Your task to perform on an android device: Empty the shopping cart on bestbuy.com. Search for "usb-c to usb-b" on bestbuy.com, select the first entry, add it to the cart, then select checkout. Image 0: 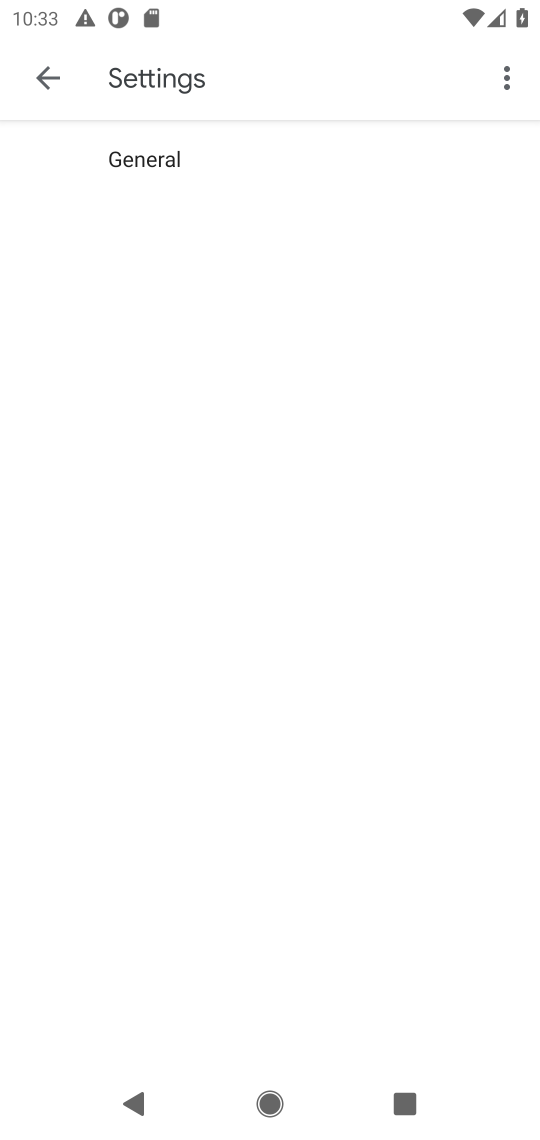
Step 0: press home button
Your task to perform on an android device: Empty the shopping cart on bestbuy.com. Search for "usb-c to usb-b" on bestbuy.com, select the first entry, add it to the cart, then select checkout. Image 1: 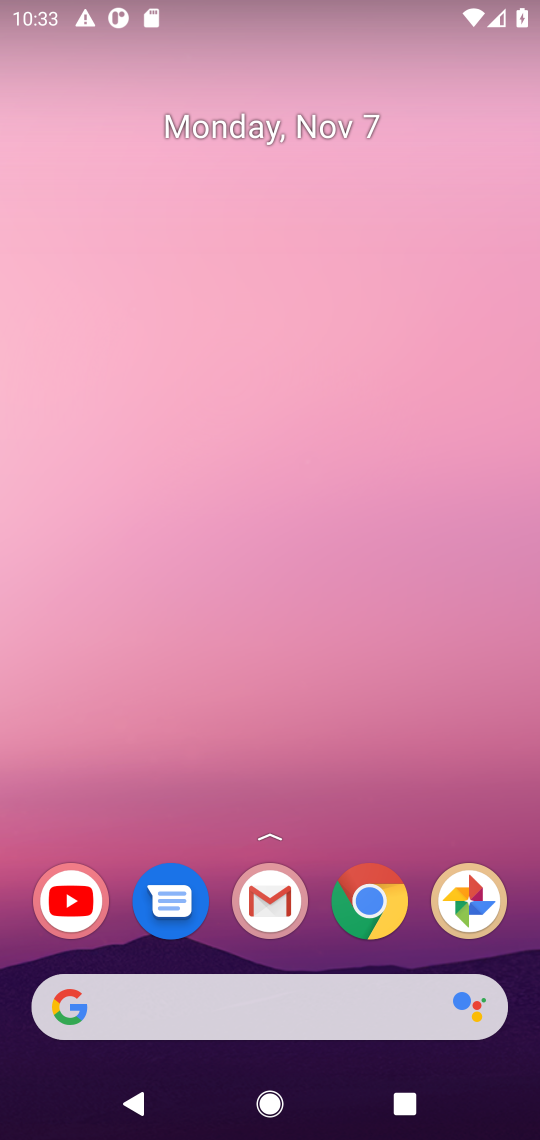
Step 1: click (365, 886)
Your task to perform on an android device: Empty the shopping cart on bestbuy.com. Search for "usb-c to usb-b" on bestbuy.com, select the first entry, add it to the cart, then select checkout. Image 2: 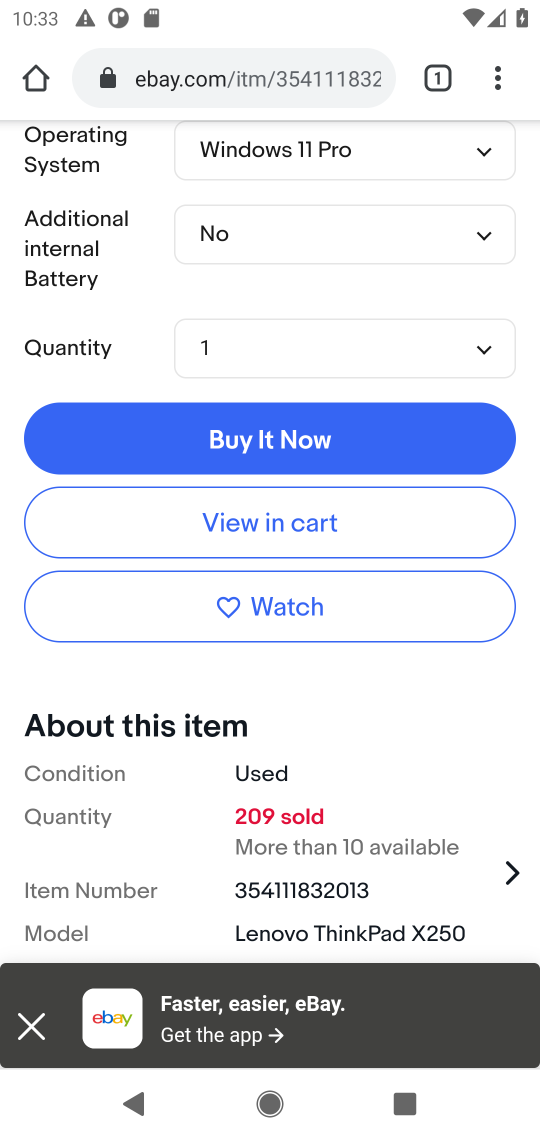
Step 2: click (249, 90)
Your task to perform on an android device: Empty the shopping cart on bestbuy.com. Search for "usb-c to usb-b" on bestbuy.com, select the first entry, add it to the cart, then select checkout. Image 3: 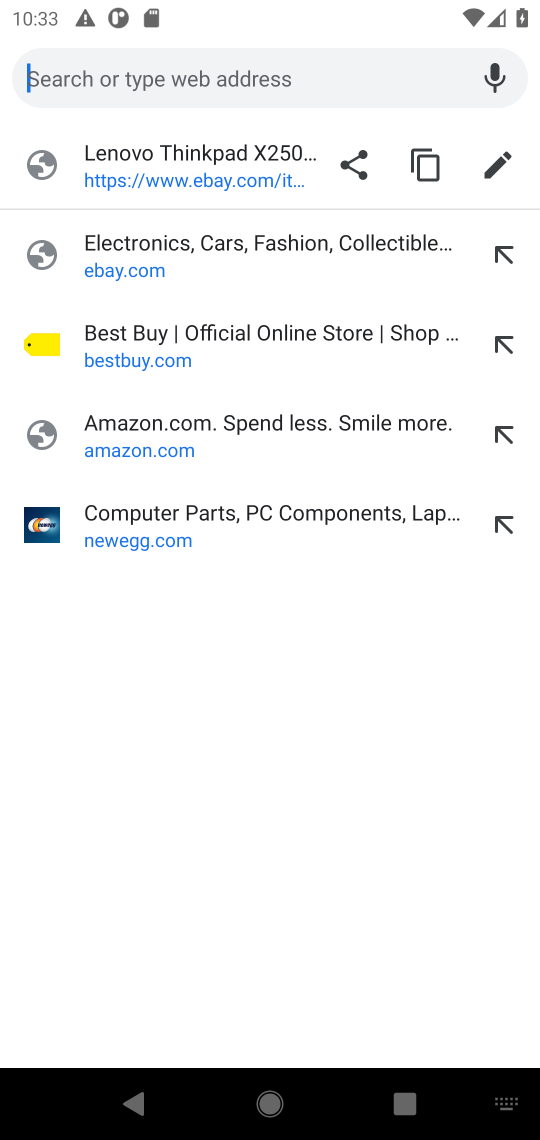
Step 3: type "bestbuy"
Your task to perform on an android device: Empty the shopping cart on bestbuy.com. Search for "usb-c to usb-b" on bestbuy.com, select the first entry, add it to the cart, then select checkout. Image 4: 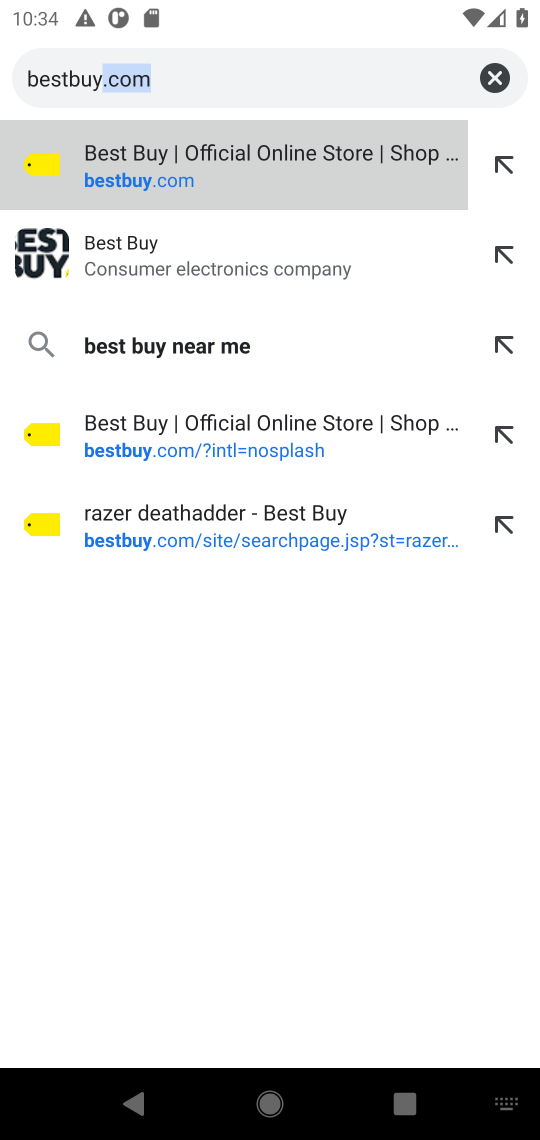
Step 4: click (283, 177)
Your task to perform on an android device: Empty the shopping cart on bestbuy.com. Search for "usb-c to usb-b" on bestbuy.com, select the first entry, add it to the cart, then select checkout. Image 5: 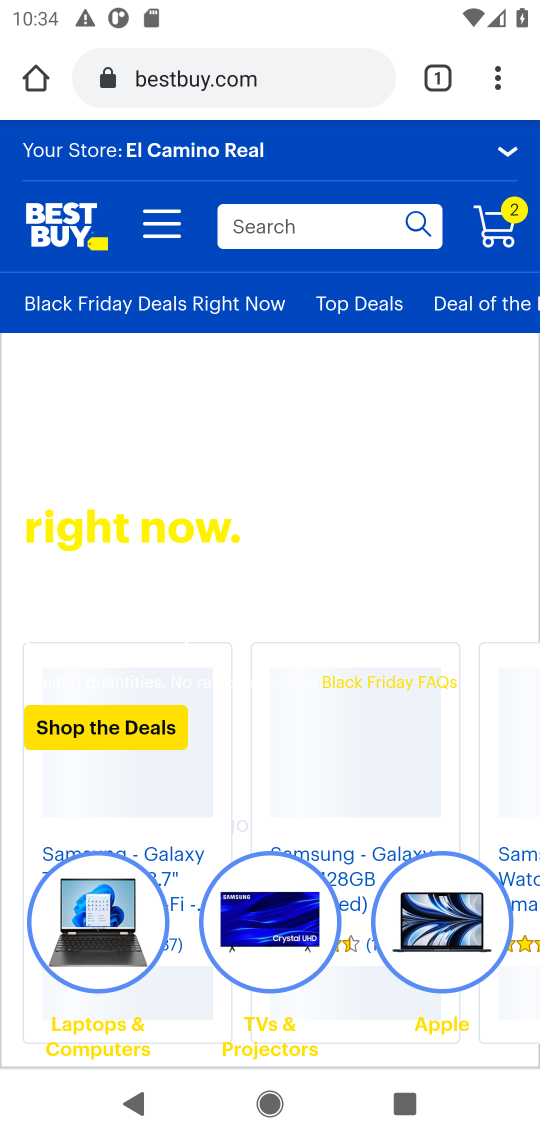
Step 5: click (342, 233)
Your task to perform on an android device: Empty the shopping cart on bestbuy.com. Search for "usb-c to usb-b" on bestbuy.com, select the first entry, add it to the cart, then select checkout. Image 6: 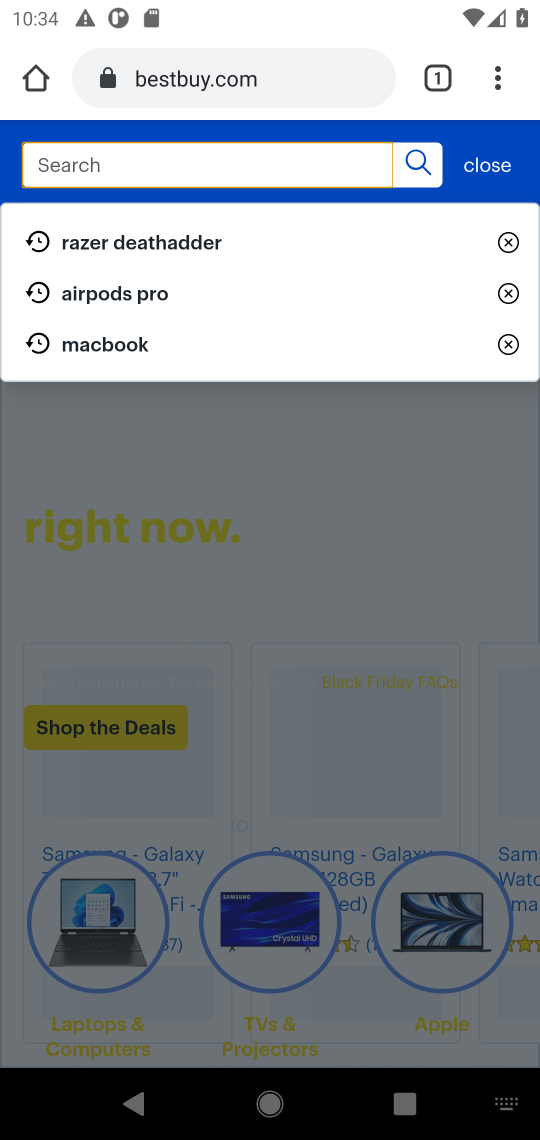
Step 6: type "usb-c to usb-b"
Your task to perform on an android device: Empty the shopping cart on bestbuy.com. Search for "usb-c to usb-b" on bestbuy.com, select the first entry, add it to the cart, then select checkout. Image 7: 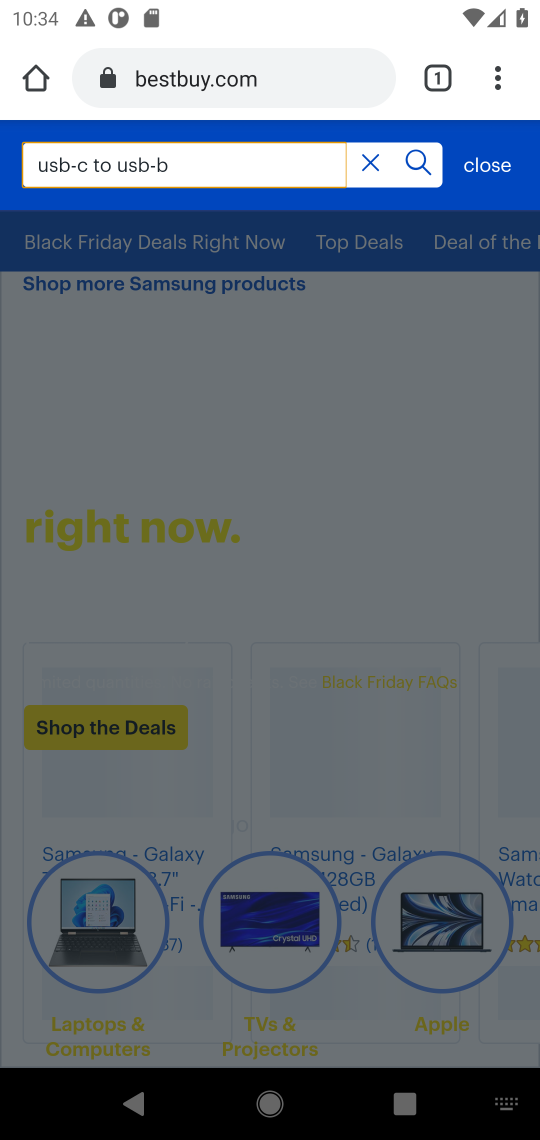
Step 7: press enter
Your task to perform on an android device: Empty the shopping cart on bestbuy.com. Search for "usb-c to usb-b" on bestbuy.com, select the first entry, add it to the cart, then select checkout. Image 8: 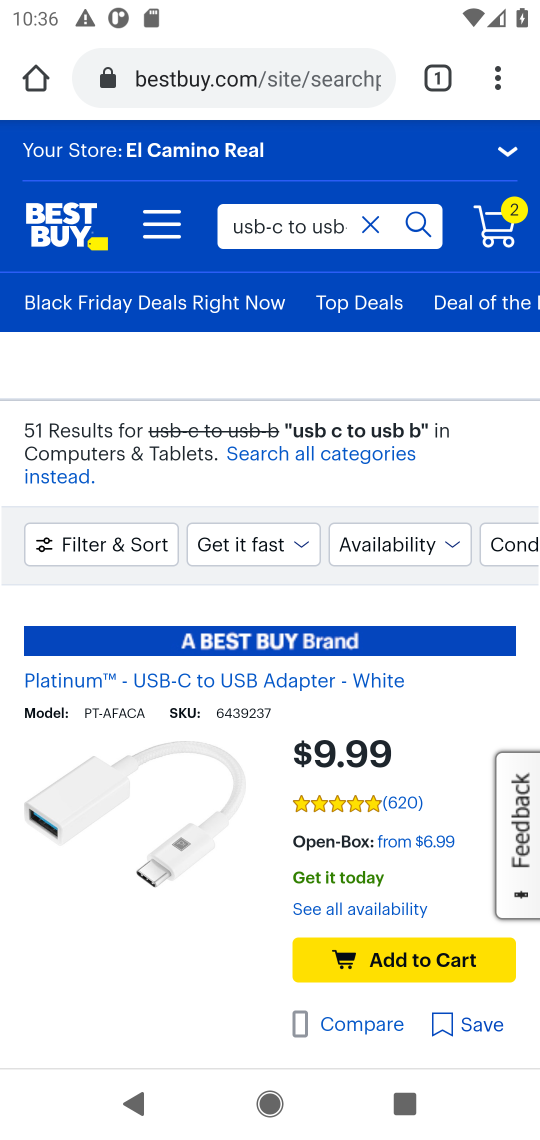
Step 8: click (335, 948)
Your task to perform on an android device: Empty the shopping cart on bestbuy.com. Search for "usb-c to usb-b" on bestbuy.com, select the first entry, add it to the cart, then select checkout. Image 9: 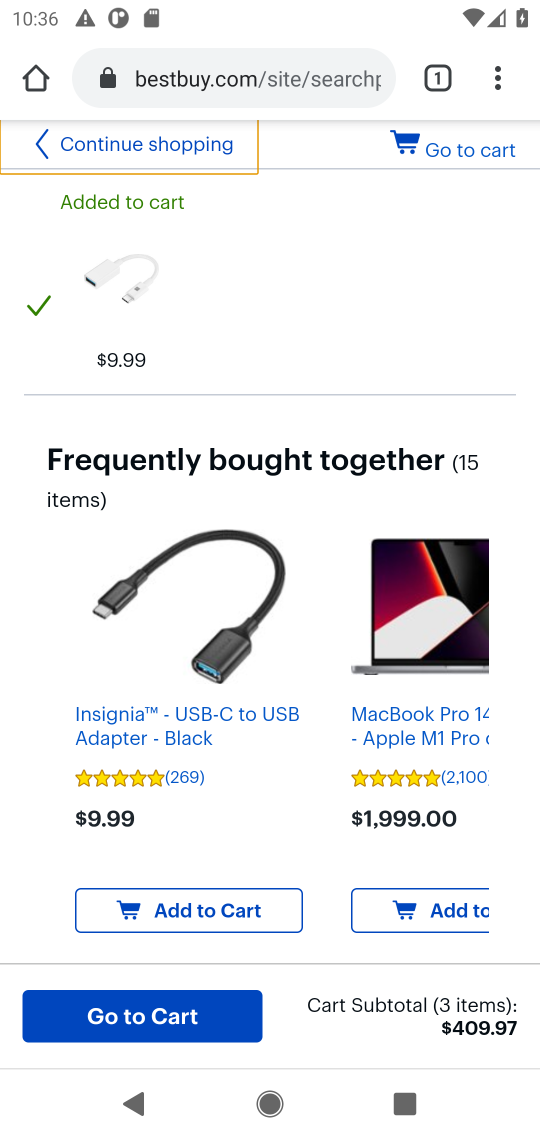
Step 9: click (183, 1016)
Your task to perform on an android device: Empty the shopping cart on bestbuy.com. Search for "usb-c to usb-b" on bestbuy.com, select the first entry, add it to the cart, then select checkout. Image 10: 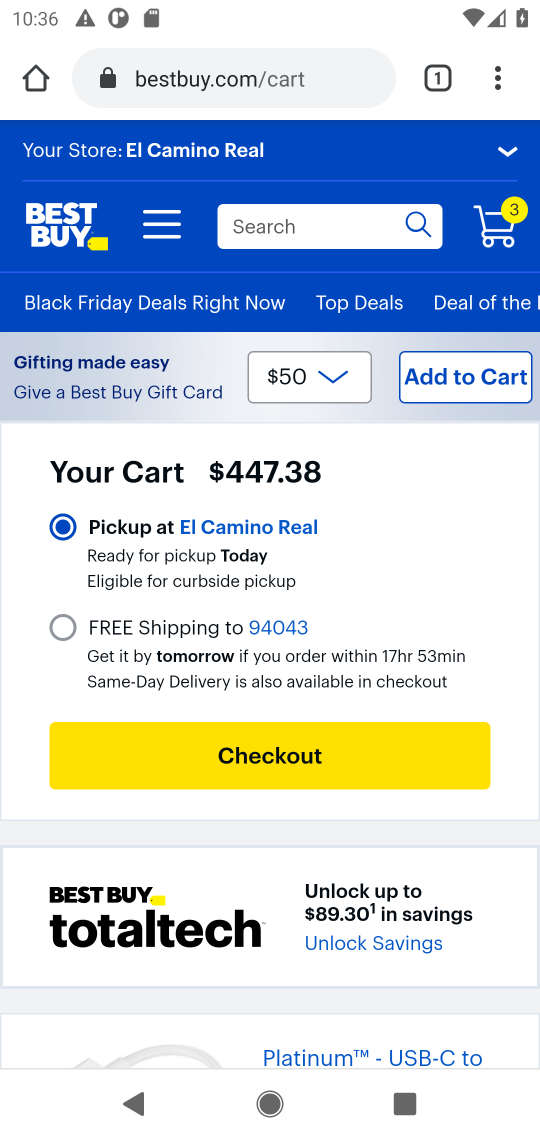
Step 10: task complete